Your task to perform on an android device: Open the calendar app, open the side menu, and click the "Day" option Image 0: 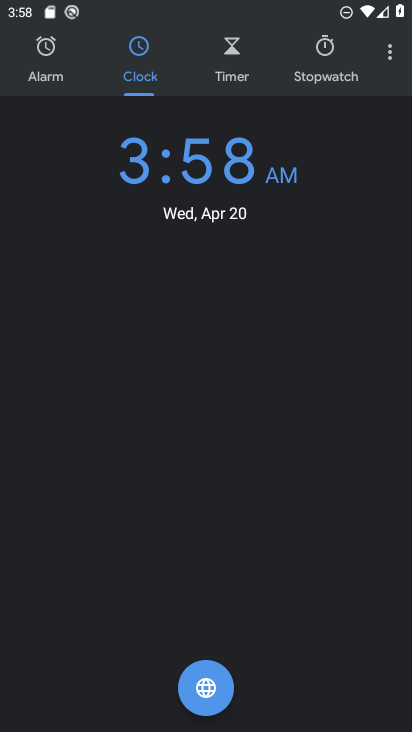
Step 0: press home button
Your task to perform on an android device: Open the calendar app, open the side menu, and click the "Day" option Image 1: 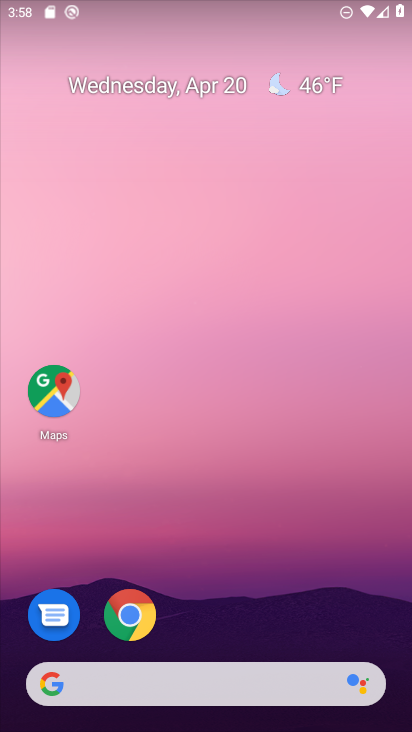
Step 1: drag from (240, 553) to (316, 97)
Your task to perform on an android device: Open the calendar app, open the side menu, and click the "Day" option Image 2: 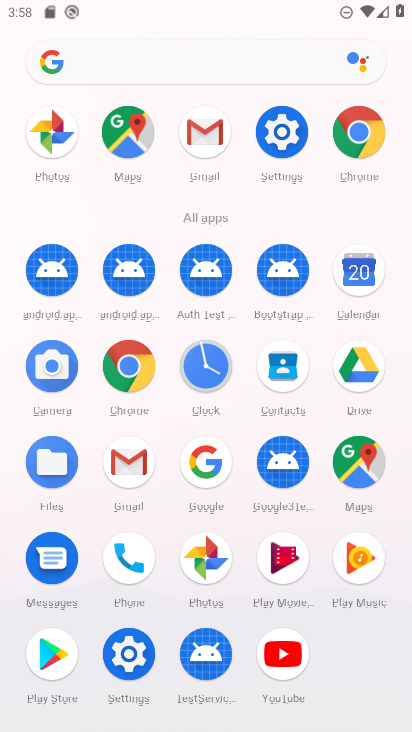
Step 2: click (335, 281)
Your task to perform on an android device: Open the calendar app, open the side menu, and click the "Day" option Image 3: 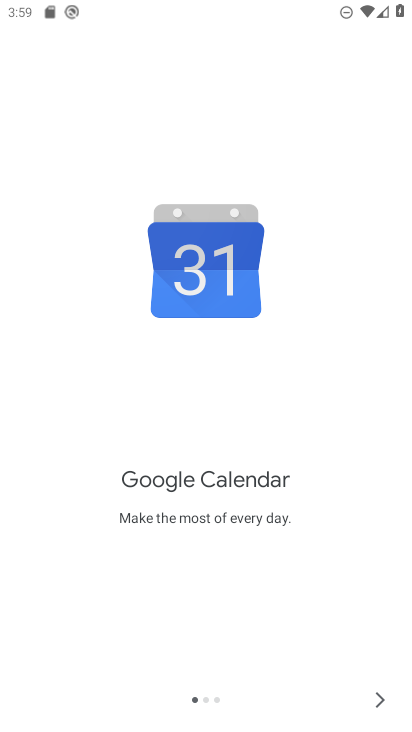
Step 3: click (379, 699)
Your task to perform on an android device: Open the calendar app, open the side menu, and click the "Day" option Image 4: 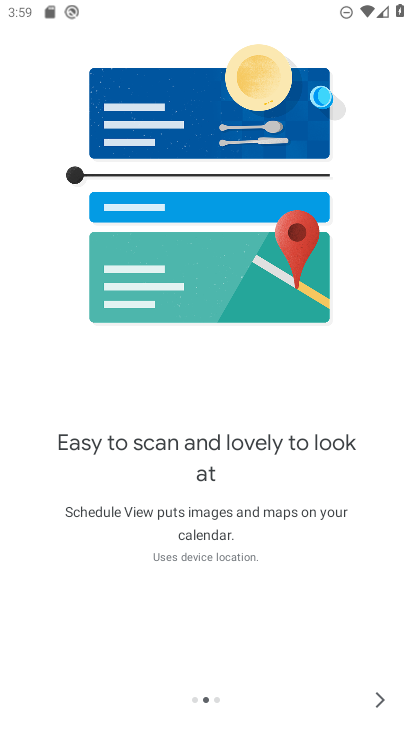
Step 4: click (354, 688)
Your task to perform on an android device: Open the calendar app, open the side menu, and click the "Day" option Image 5: 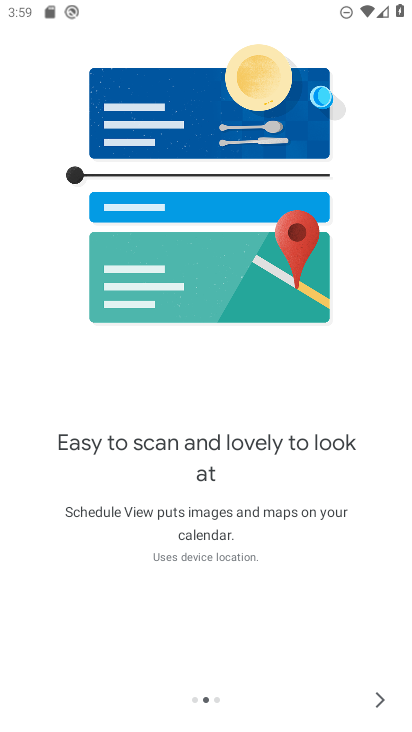
Step 5: click (380, 697)
Your task to perform on an android device: Open the calendar app, open the side menu, and click the "Day" option Image 6: 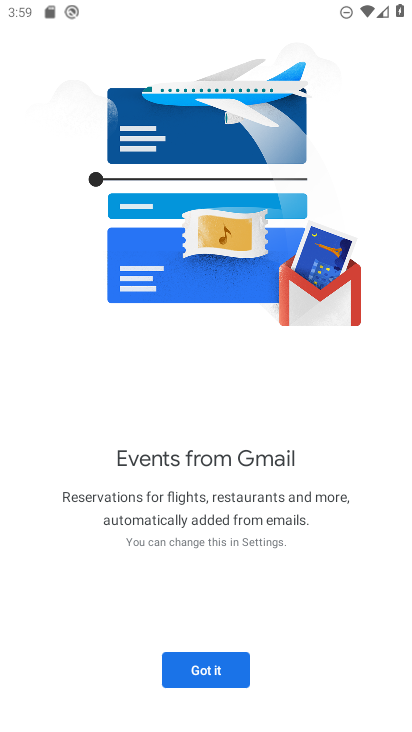
Step 6: click (186, 656)
Your task to perform on an android device: Open the calendar app, open the side menu, and click the "Day" option Image 7: 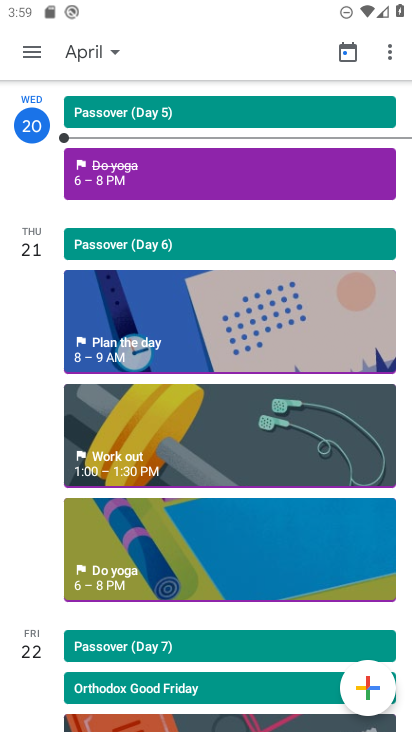
Step 7: click (60, 59)
Your task to perform on an android device: Open the calendar app, open the side menu, and click the "Day" option Image 8: 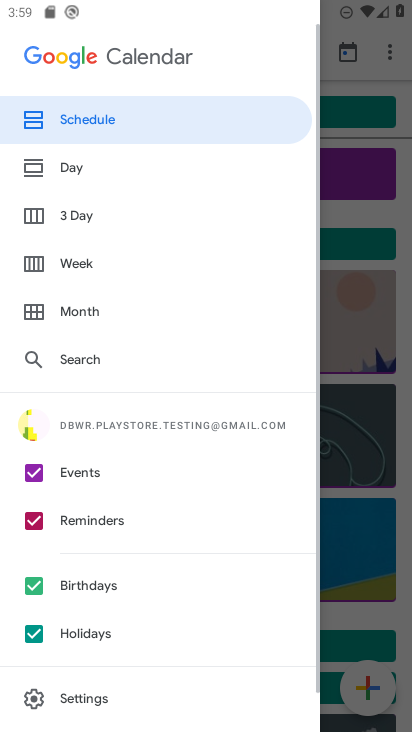
Step 8: click (53, 164)
Your task to perform on an android device: Open the calendar app, open the side menu, and click the "Day" option Image 9: 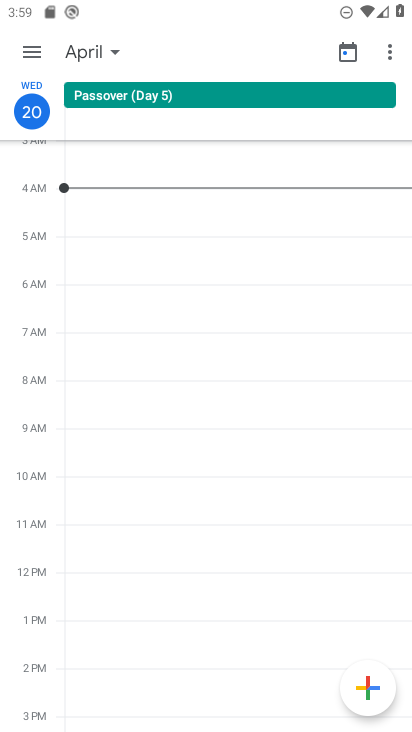
Step 9: task complete